Your task to perform on an android device: turn notification dots off Image 0: 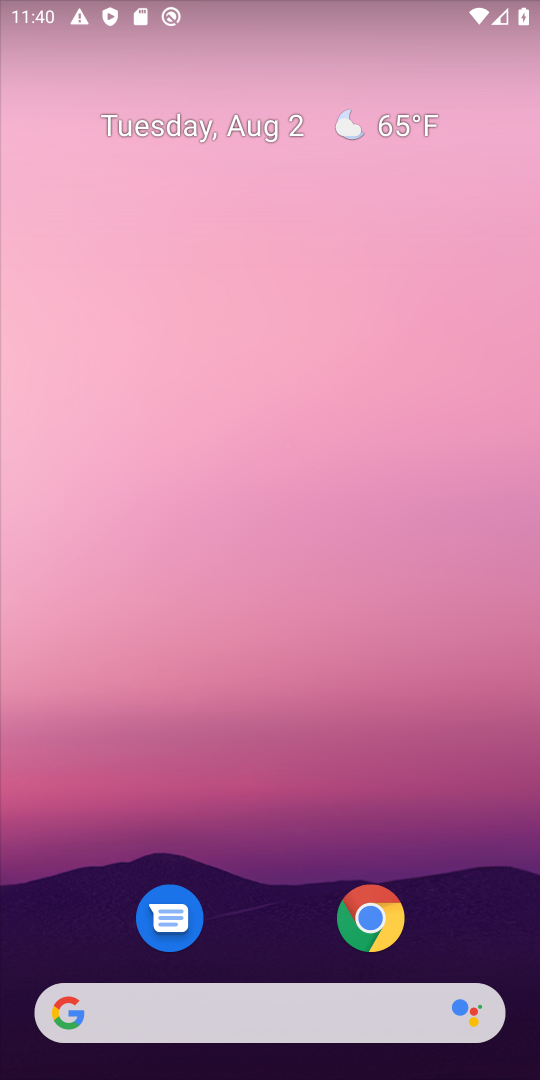
Step 0: drag from (281, 839) to (282, 23)
Your task to perform on an android device: turn notification dots off Image 1: 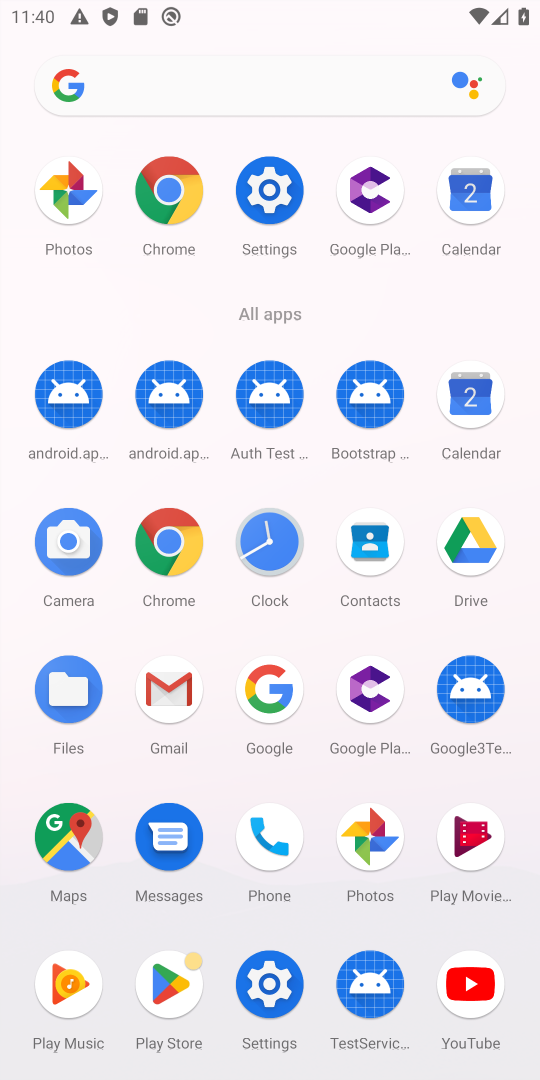
Step 1: click (278, 185)
Your task to perform on an android device: turn notification dots off Image 2: 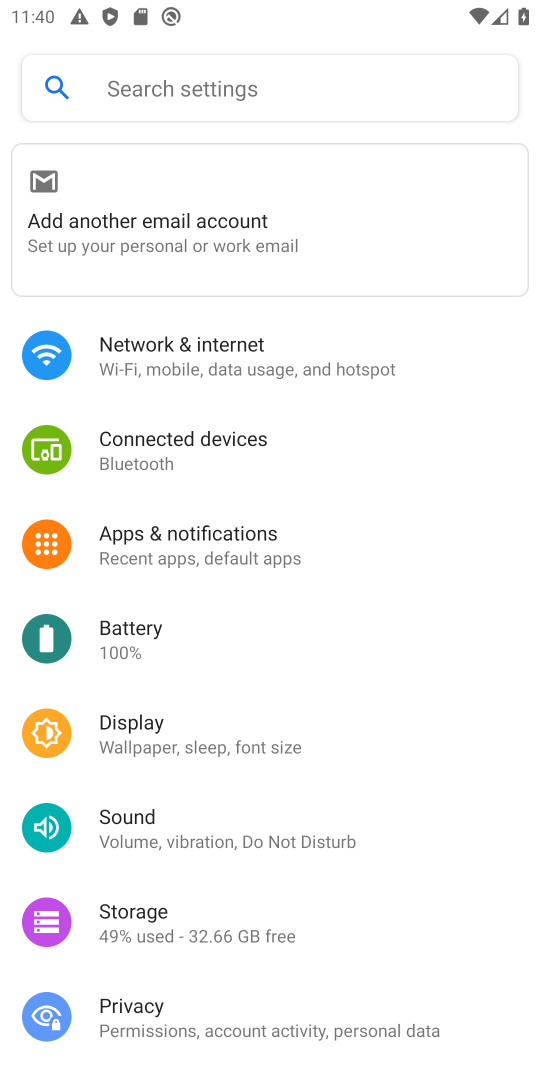
Step 2: click (245, 544)
Your task to perform on an android device: turn notification dots off Image 3: 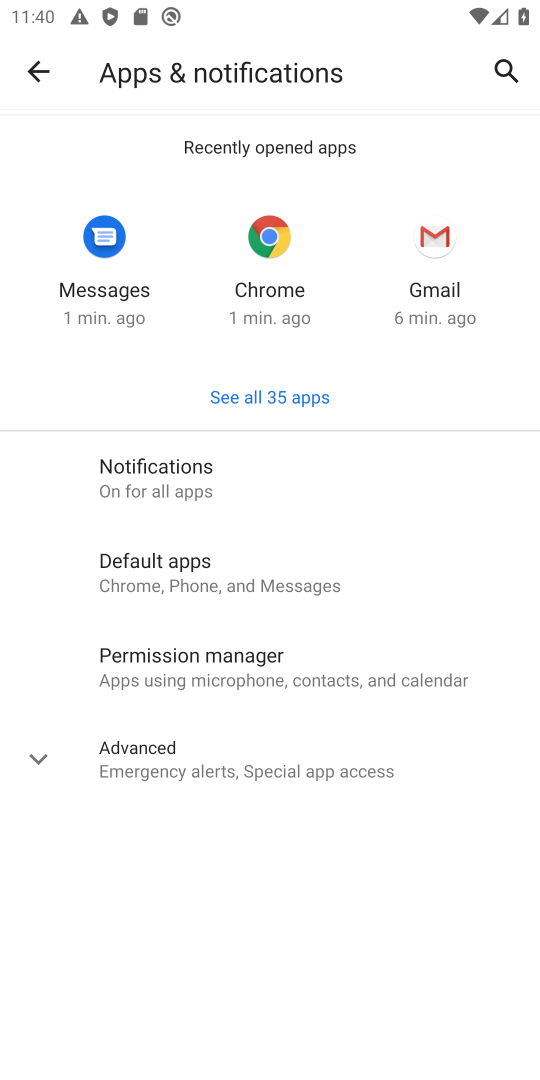
Step 3: click (184, 477)
Your task to perform on an android device: turn notification dots off Image 4: 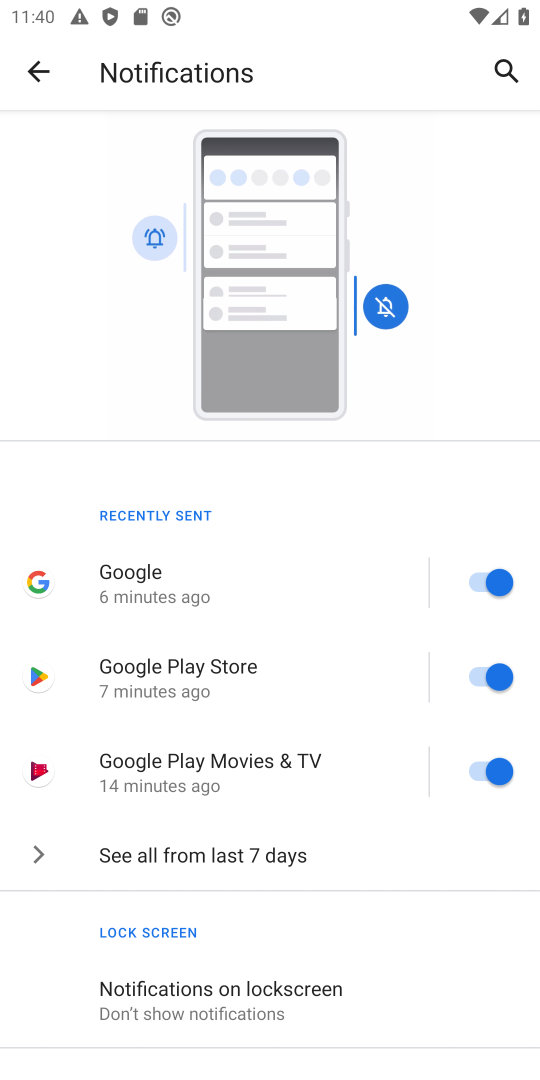
Step 4: drag from (323, 679) to (319, 387)
Your task to perform on an android device: turn notification dots off Image 5: 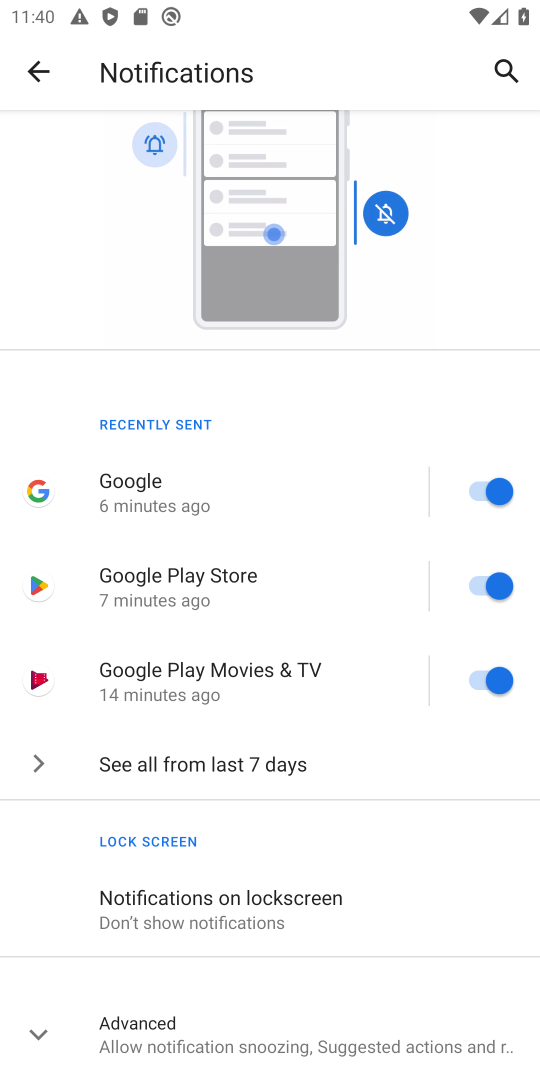
Step 5: click (43, 1025)
Your task to perform on an android device: turn notification dots off Image 6: 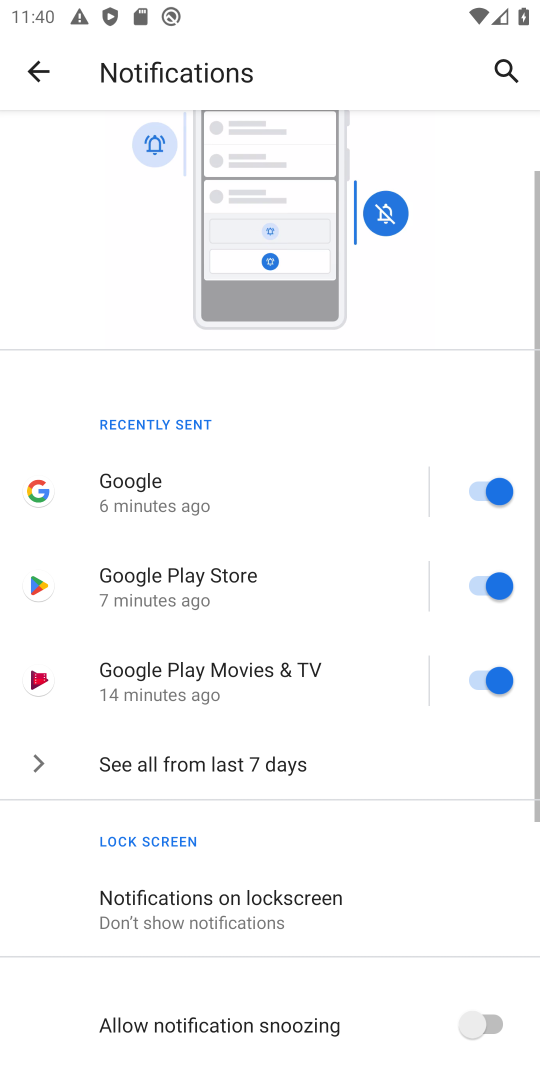
Step 6: drag from (280, 787) to (319, 181)
Your task to perform on an android device: turn notification dots off Image 7: 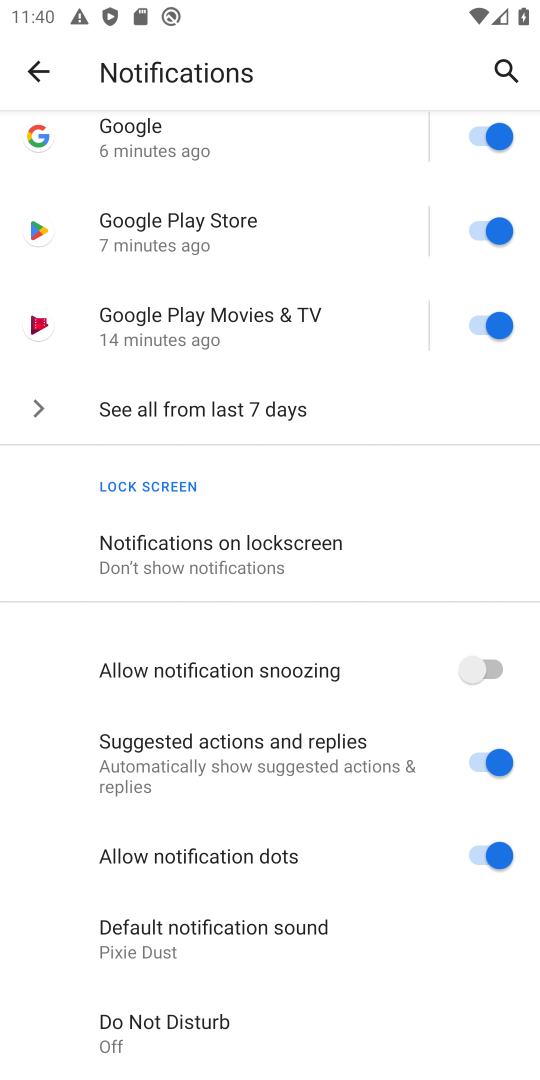
Step 7: click (482, 853)
Your task to perform on an android device: turn notification dots off Image 8: 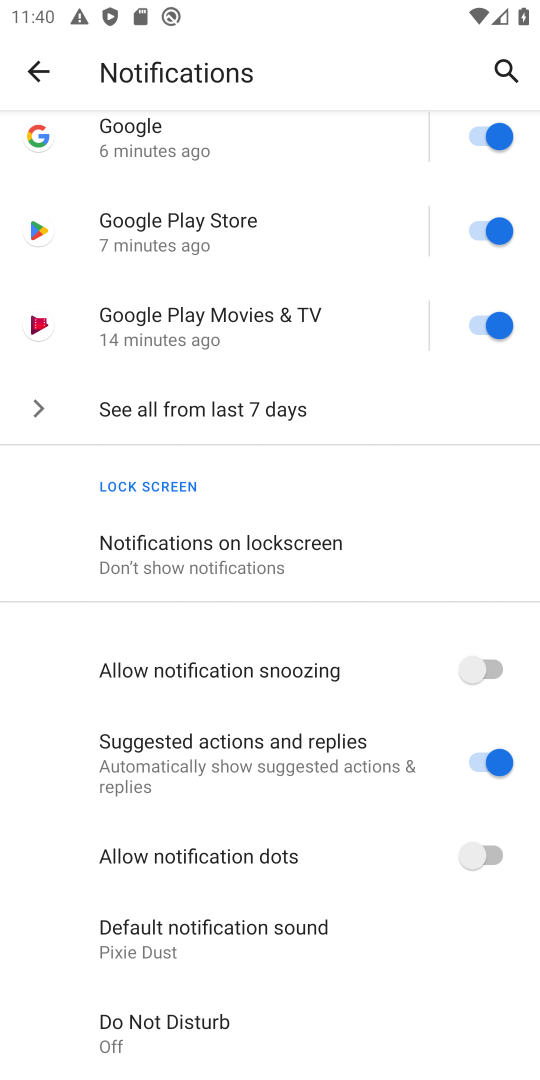
Step 8: task complete